Your task to perform on an android device: Go to sound settings Image 0: 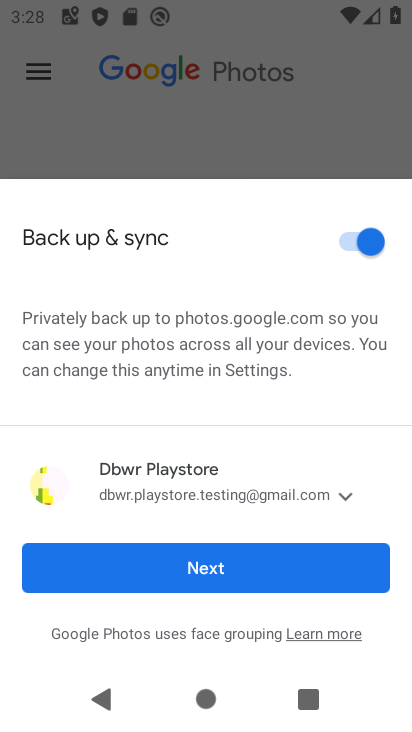
Step 0: press home button
Your task to perform on an android device: Go to sound settings Image 1: 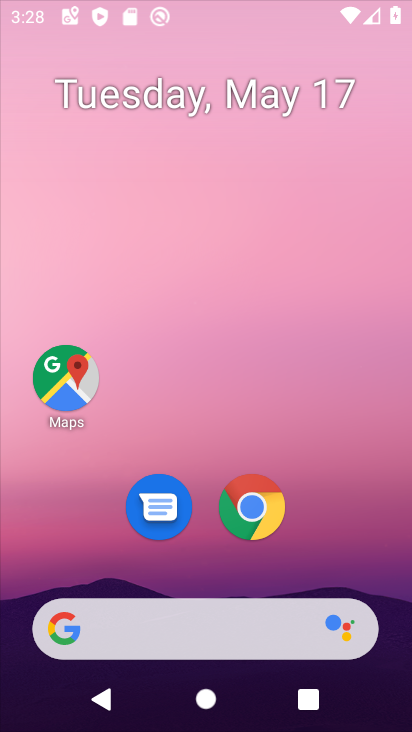
Step 1: drag from (334, 548) to (346, 106)
Your task to perform on an android device: Go to sound settings Image 2: 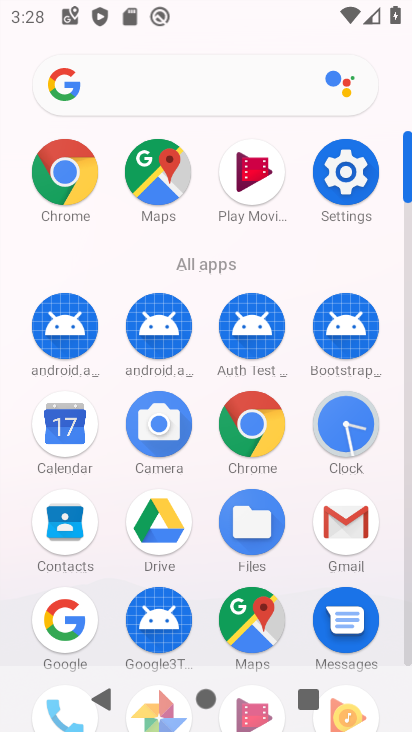
Step 2: click (348, 184)
Your task to perform on an android device: Go to sound settings Image 3: 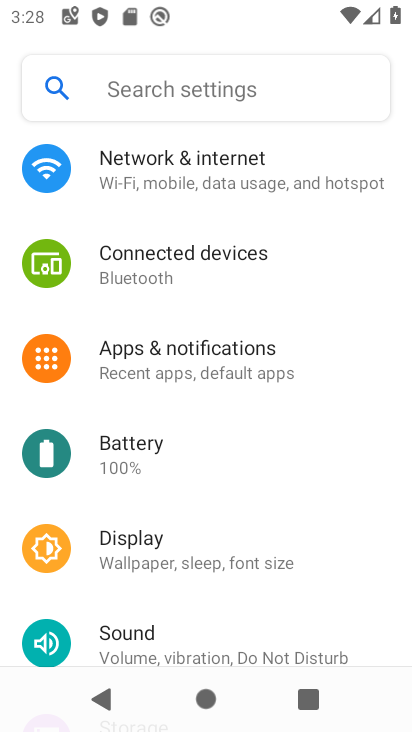
Step 3: drag from (276, 580) to (300, 213)
Your task to perform on an android device: Go to sound settings Image 4: 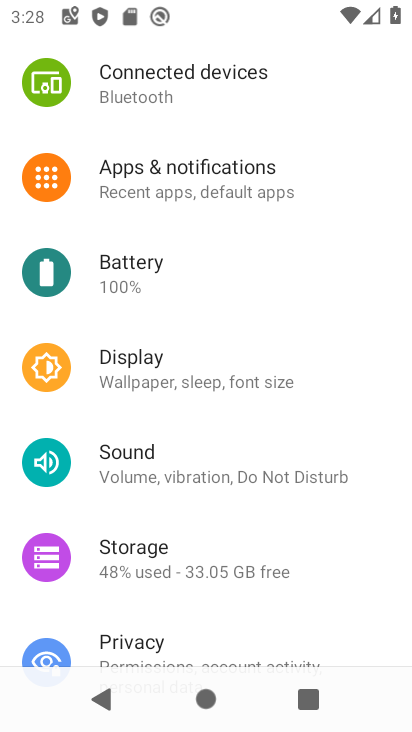
Step 4: click (168, 465)
Your task to perform on an android device: Go to sound settings Image 5: 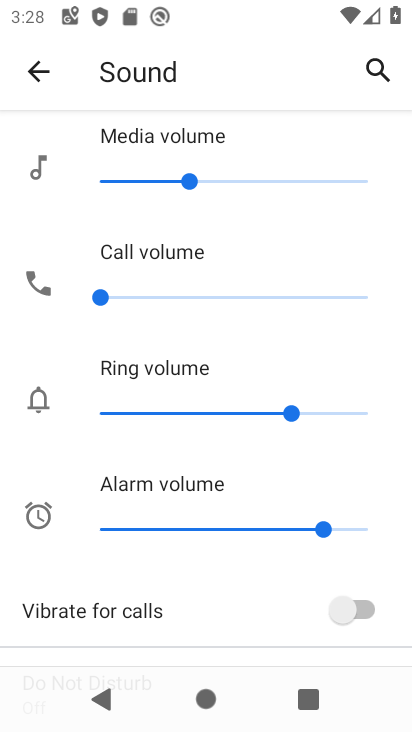
Step 5: task complete